Your task to perform on an android device: Go to Maps Image 0: 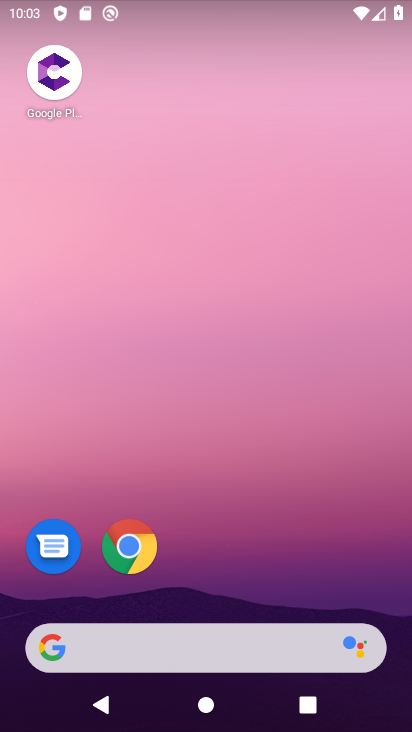
Step 0: drag from (158, 715) to (200, 139)
Your task to perform on an android device: Go to Maps Image 1: 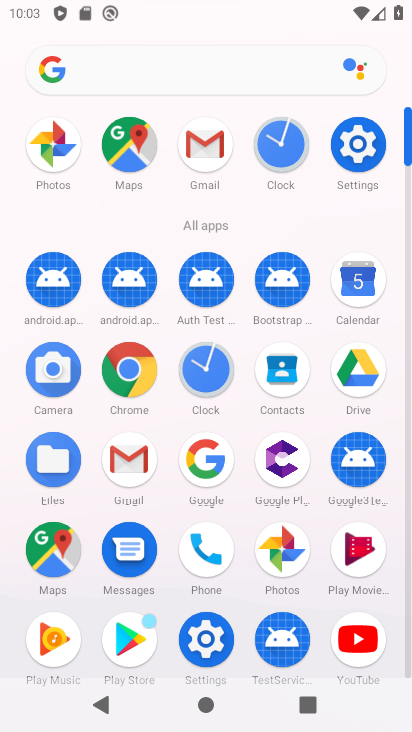
Step 1: click (52, 557)
Your task to perform on an android device: Go to Maps Image 2: 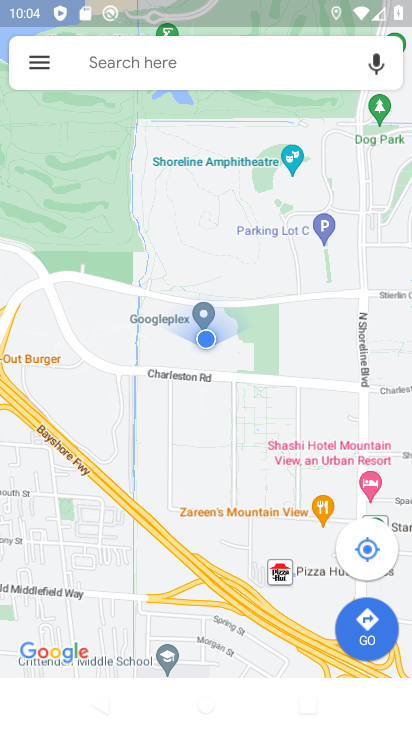
Step 2: task complete